Your task to perform on an android device: Open CNN.com Image 0: 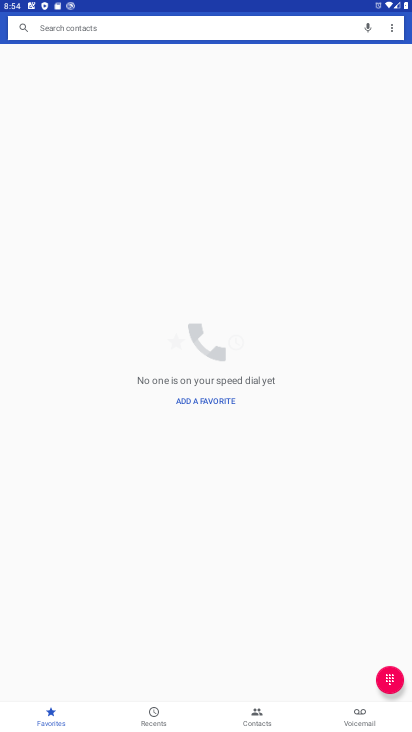
Step 0: press home button
Your task to perform on an android device: Open CNN.com Image 1: 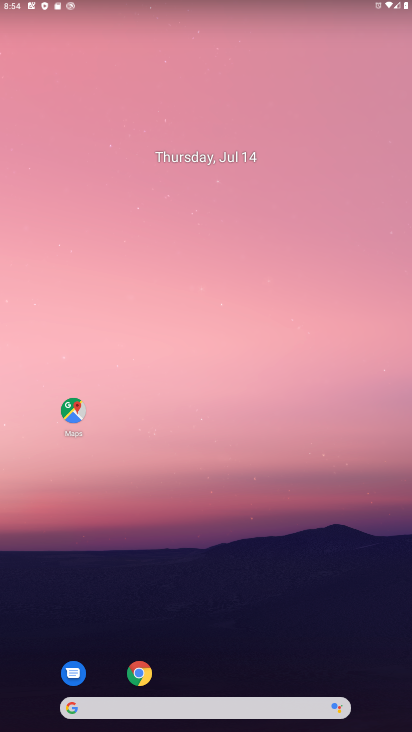
Step 1: click (140, 676)
Your task to perform on an android device: Open CNN.com Image 2: 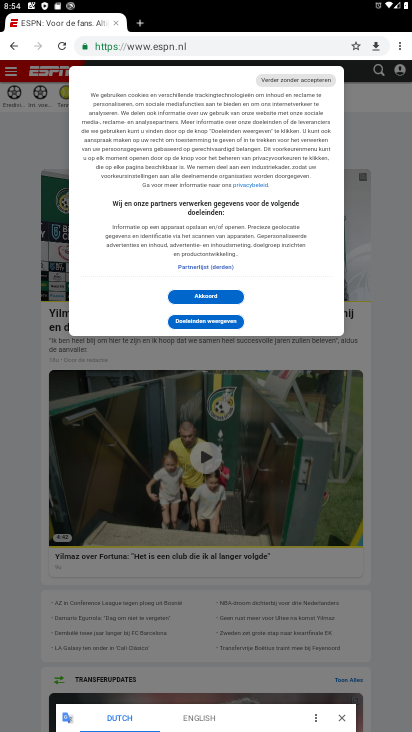
Step 2: click (310, 44)
Your task to perform on an android device: Open CNN.com Image 3: 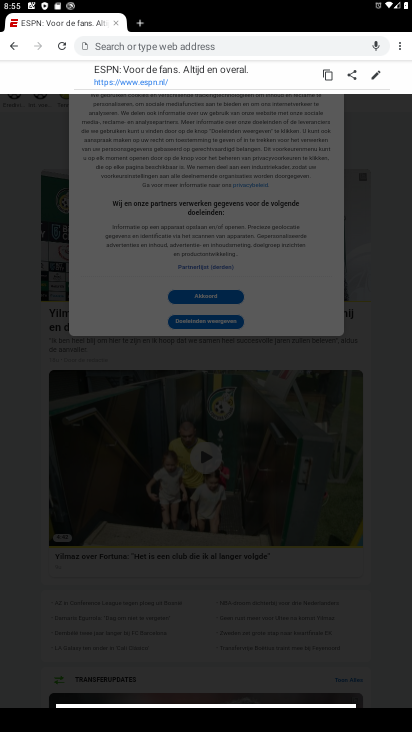
Step 3: type "CNN.com"
Your task to perform on an android device: Open CNN.com Image 4: 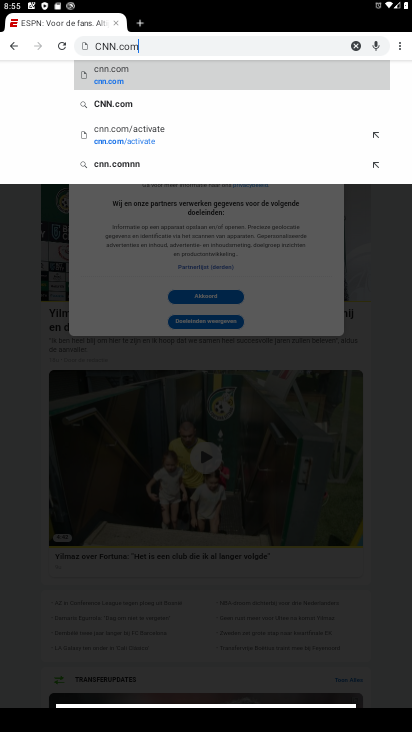
Step 4: click (131, 103)
Your task to perform on an android device: Open CNN.com Image 5: 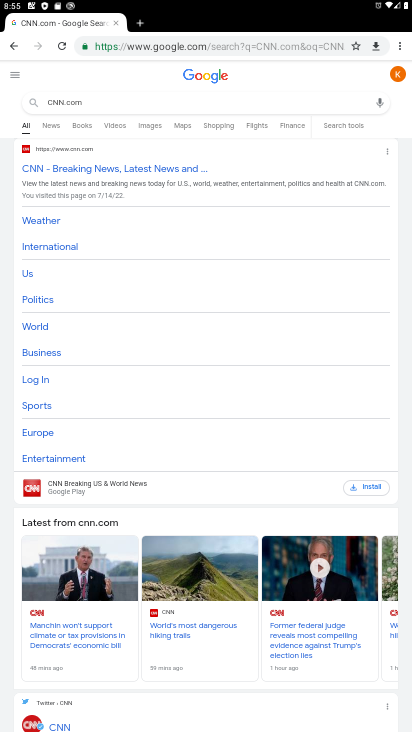
Step 5: click (125, 163)
Your task to perform on an android device: Open CNN.com Image 6: 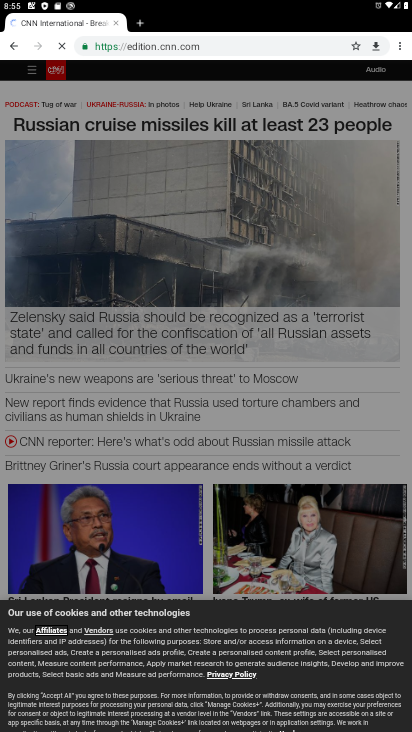
Step 6: task complete